Your task to perform on an android device: open chrome and create a bookmark for the current page Image 0: 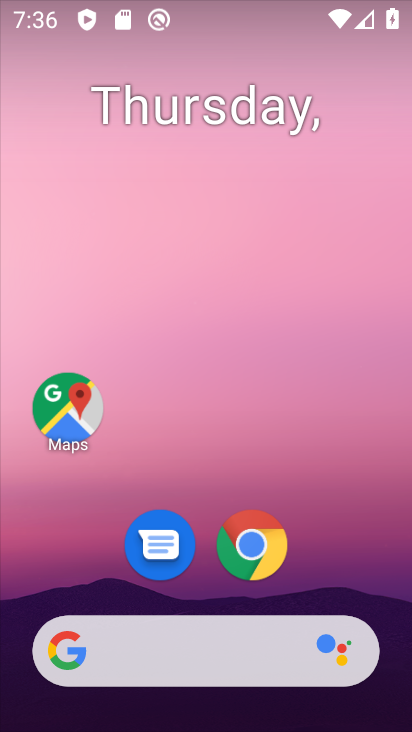
Step 0: drag from (218, 565) to (373, 162)
Your task to perform on an android device: open chrome and create a bookmark for the current page Image 1: 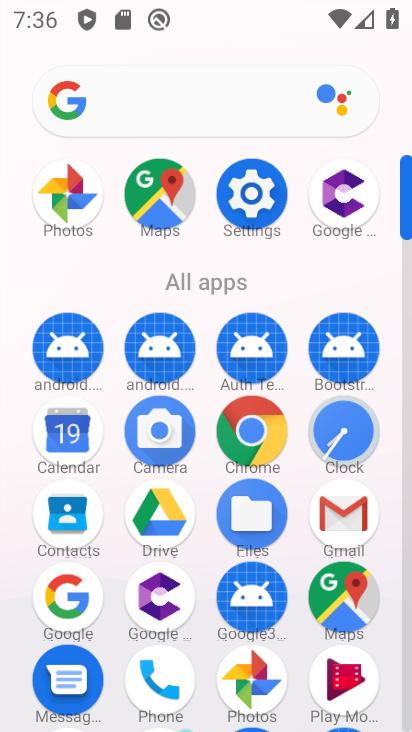
Step 1: click (262, 430)
Your task to perform on an android device: open chrome and create a bookmark for the current page Image 2: 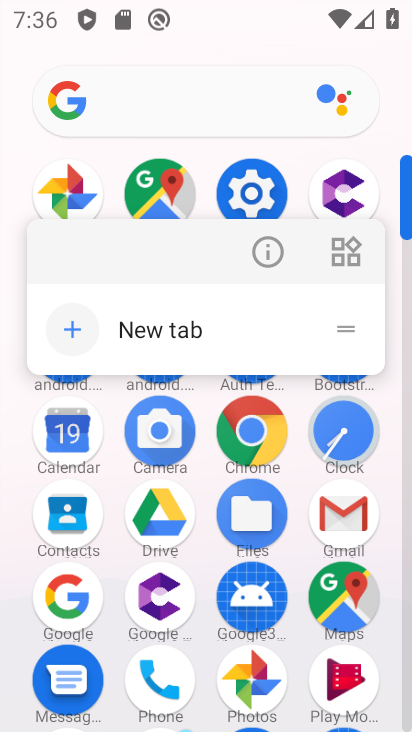
Step 2: drag from (270, 525) to (74, 731)
Your task to perform on an android device: open chrome and create a bookmark for the current page Image 3: 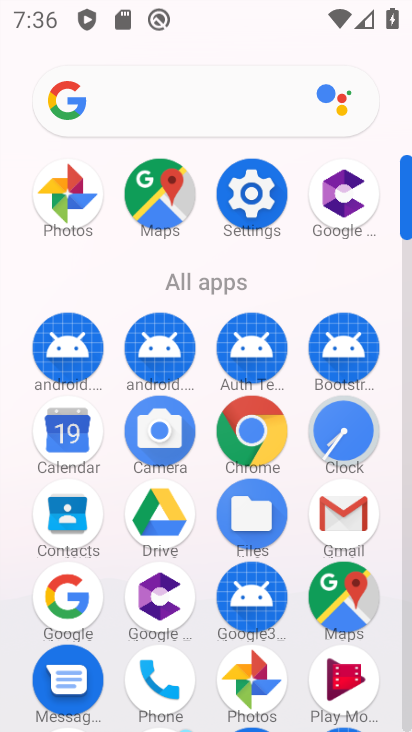
Step 3: click (258, 443)
Your task to perform on an android device: open chrome and create a bookmark for the current page Image 4: 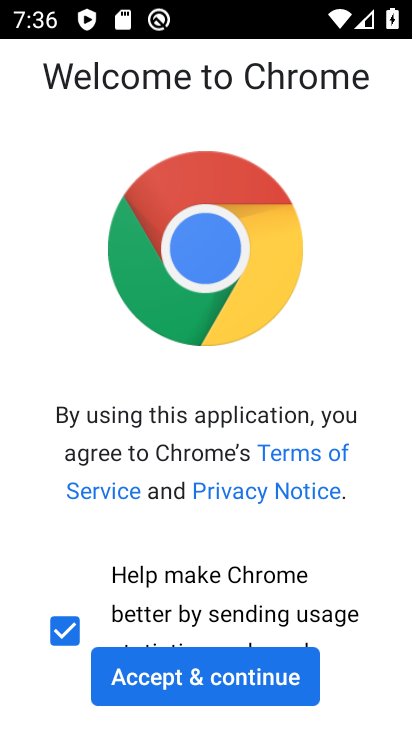
Step 4: click (228, 669)
Your task to perform on an android device: open chrome and create a bookmark for the current page Image 5: 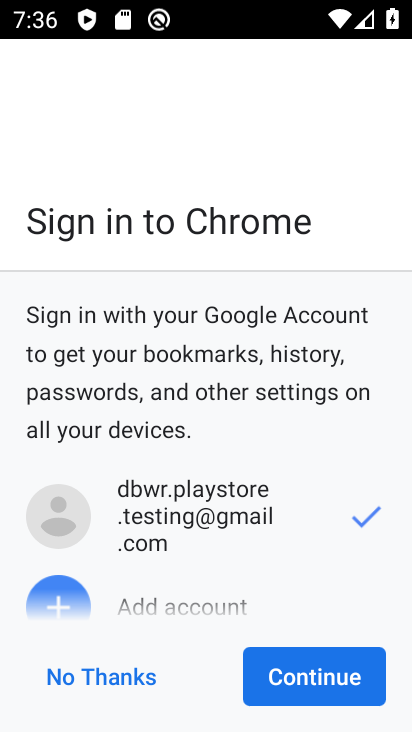
Step 5: click (271, 689)
Your task to perform on an android device: open chrome and create a bookmark for the current page Image 6: 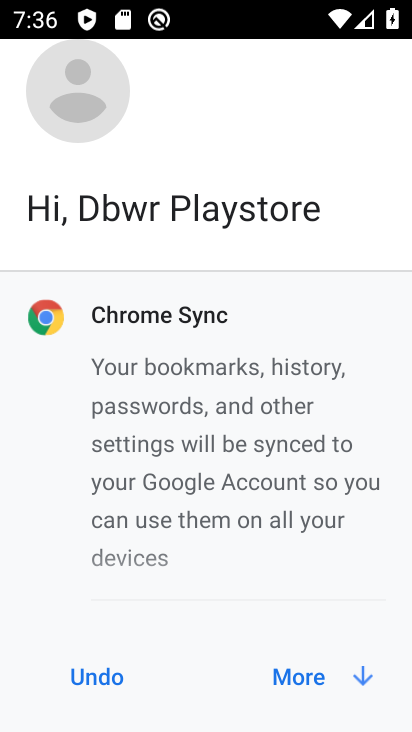
Step 6: click (297, 664)
Your task to perform on an android device: open chrome and create a bookmark for the current page Image 7: 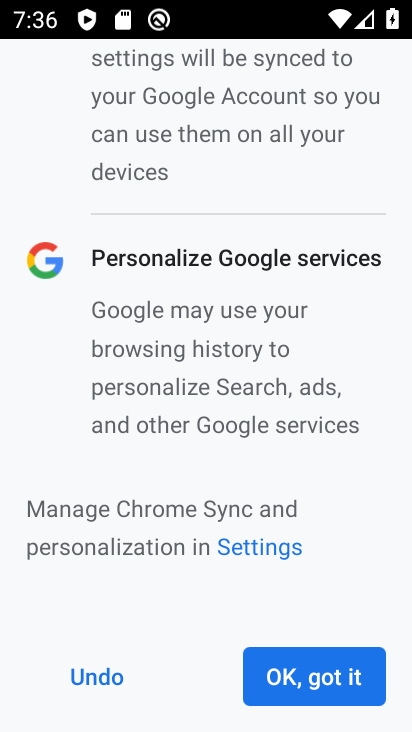
Step 7: click (308, 671)
Your task to perform on an android device: open chrome and create a bookmark for the current page Image 8: 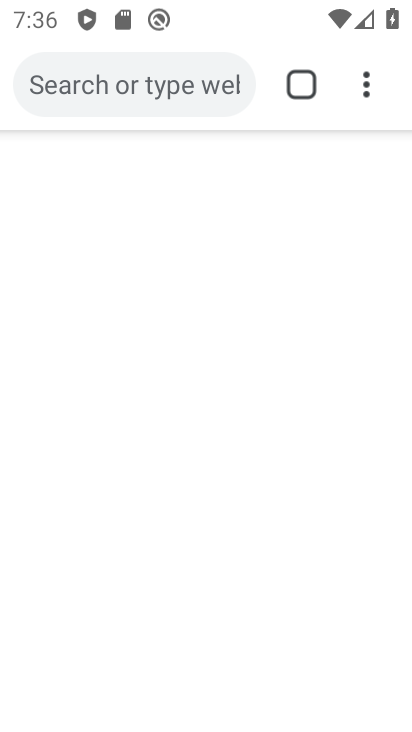
Step 8: click (372, 65)
Your task to perform on an android device: open chrome and create a bookmark for the current page Image 9: 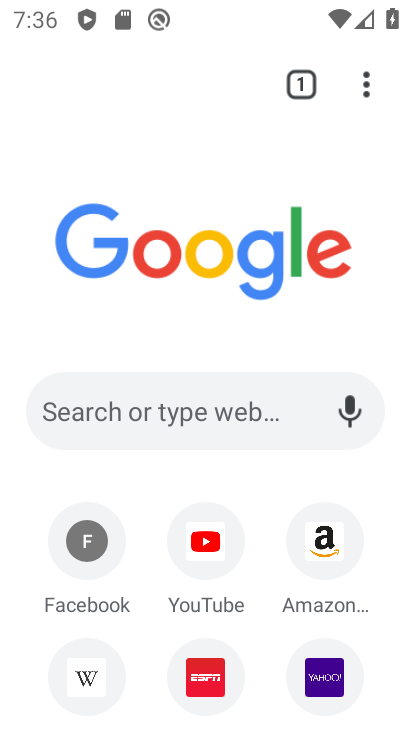
Step 9: click (365, 94)
Your task to perform on an android device: open chrome and create a bookmark for the current page Image 10: 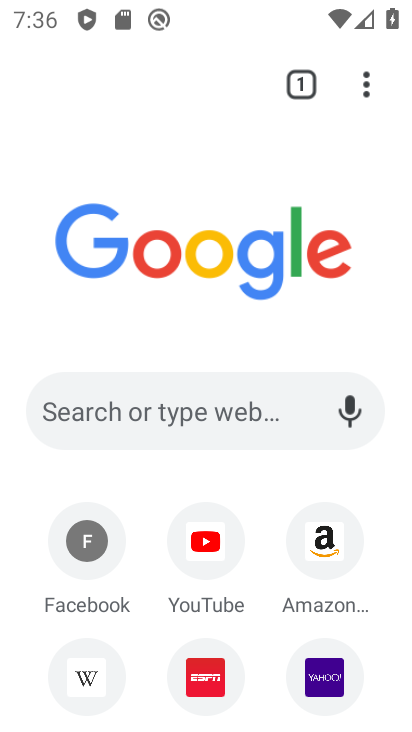
Step 10: click (365, 98)
Your task to perform on an android device: open chrome and create a bookmark for the current page Image 11: 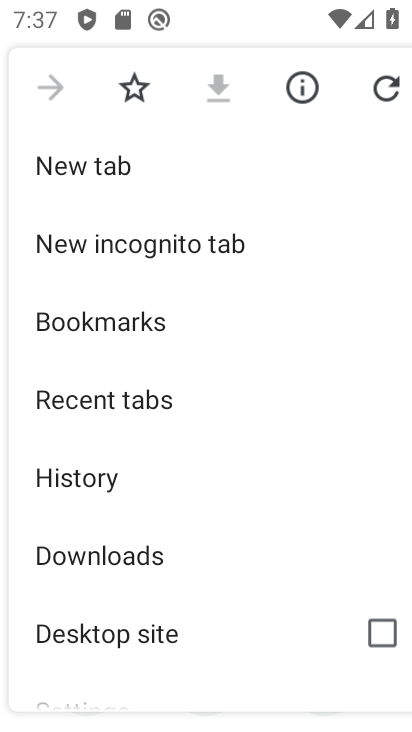
Step 11: click (135, 85)
Your task to perform on an android device: open chrome and create a bookmark for the current page Image 12: 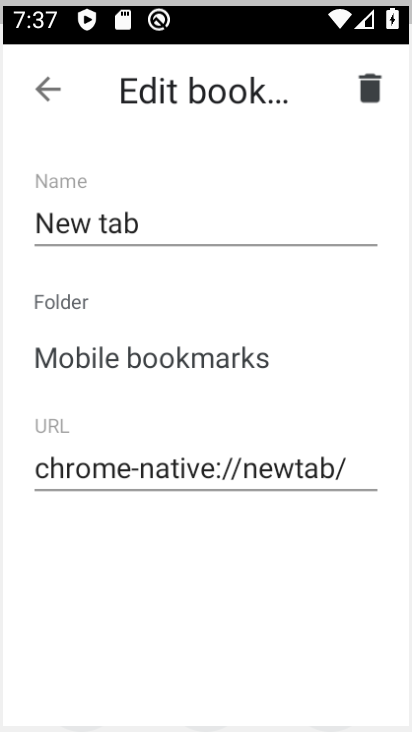
Step 12: task complete